Your task to perform on an android device: check battery use Image 0: 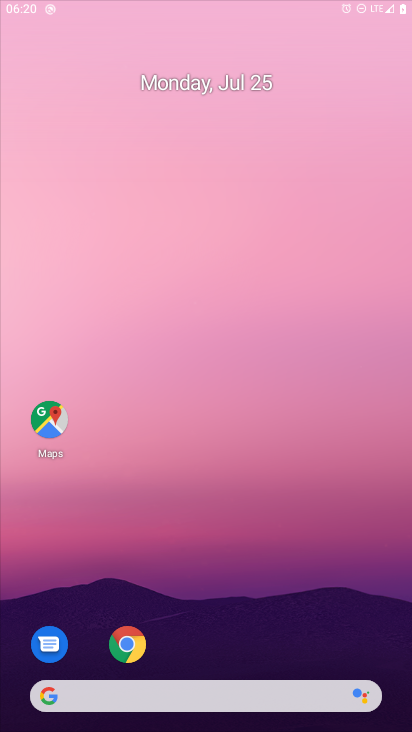
Step 0: press home button
Your task to perform on an android device: check battery use Image 1: 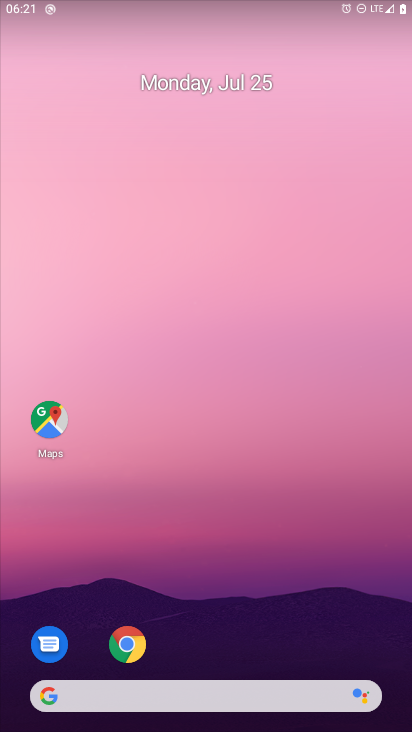
Step 1: drag from (246, 637) to (209, 234)
Your task to perform on an android device: check battery use Image 2: 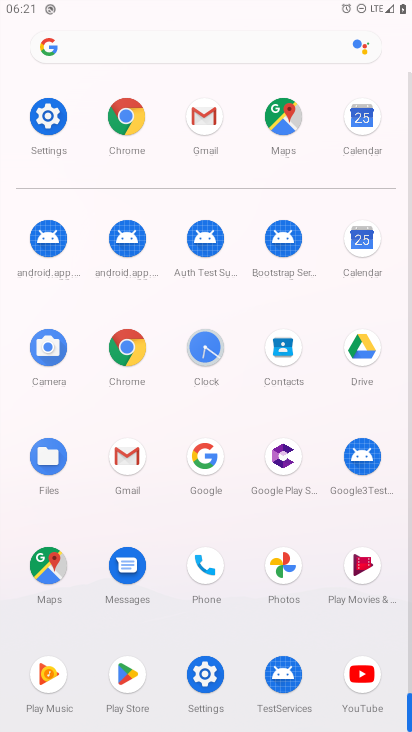
Step 2: click (52, 113)
Your task to perform on an android device: check battery use Image 3: 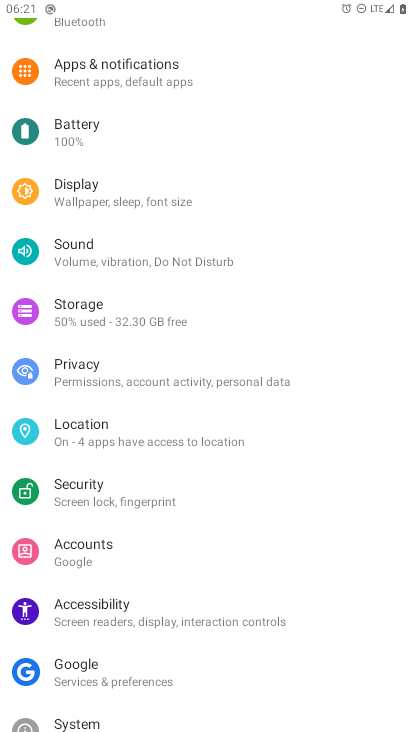
Step 3: click (74, 133)
Your task to perform on an android device: check battery use Image 4: 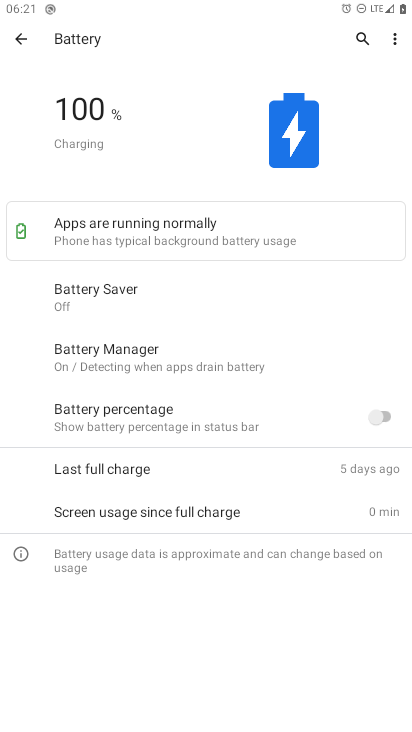
Step 4: click (398, 40)
Your task to perform on an android device: check battery use Image 5: 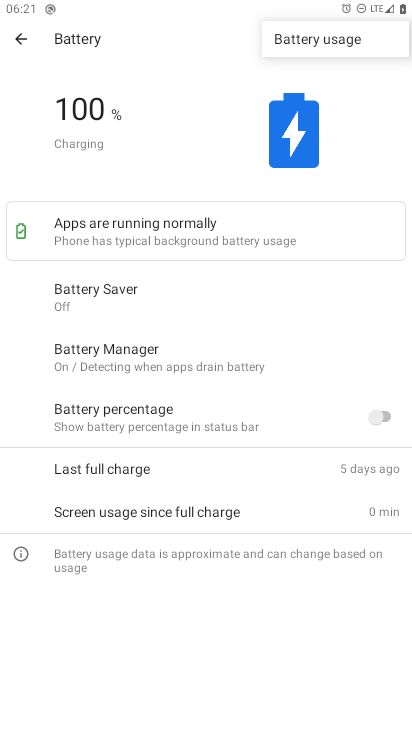
Step 5: click (323, 42)
Your task to perform on an android device: check battery use Image 6: 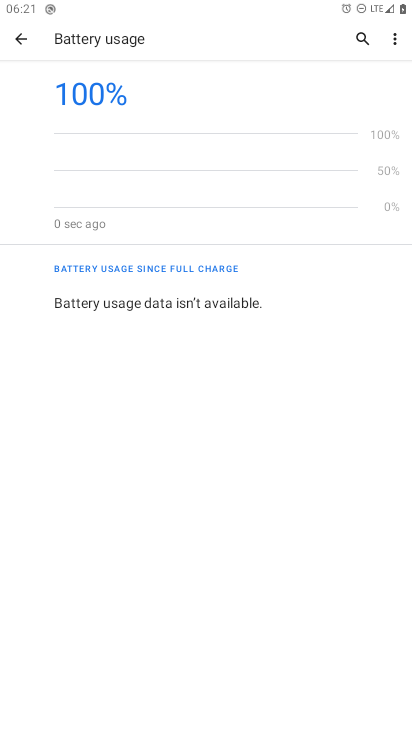
Step 6: task complete